Your task to perform on an android device: change timer sound Image 0: 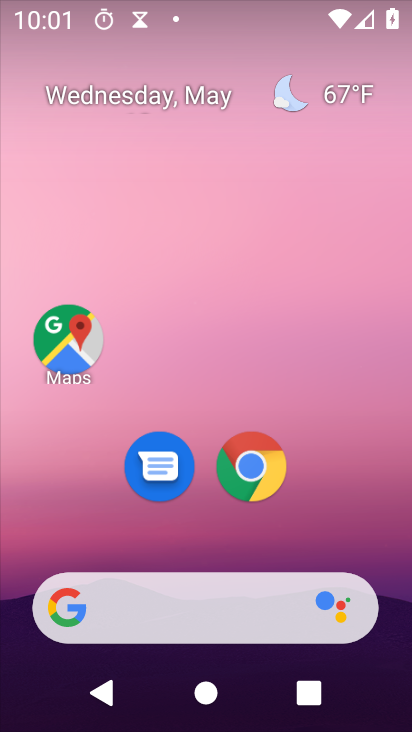
Step 0: drag from (284, 527) to (329, 194)
Your task to perform on an android device: change timer sound Image 1: 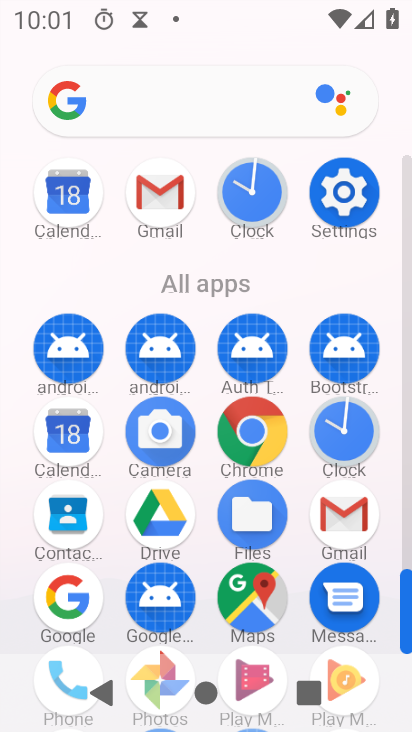
Step 1: click (249, 186)
Your task to perform on an android device: change timer sound Image 2: 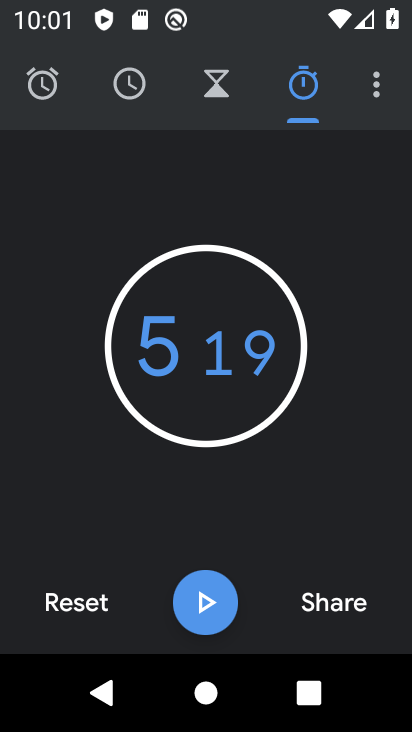
Step 2: click (221, 93)
Your task to perform on an android device: change timer sound Image 3: 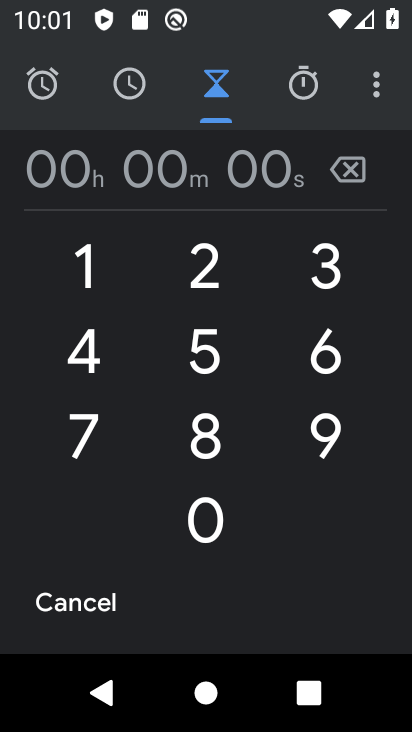
Step 3: click (208, 262)
Your task to perform on an android device: change timer sound Image 4: 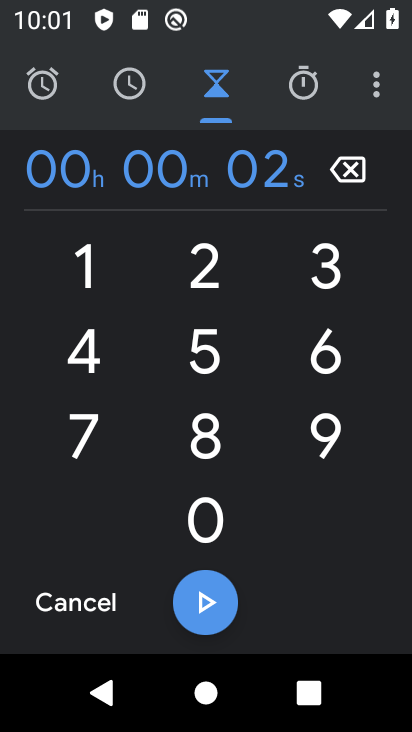
Step 4: click (203, 517)
Your task to perform on an android device: change timer sound Image 5: 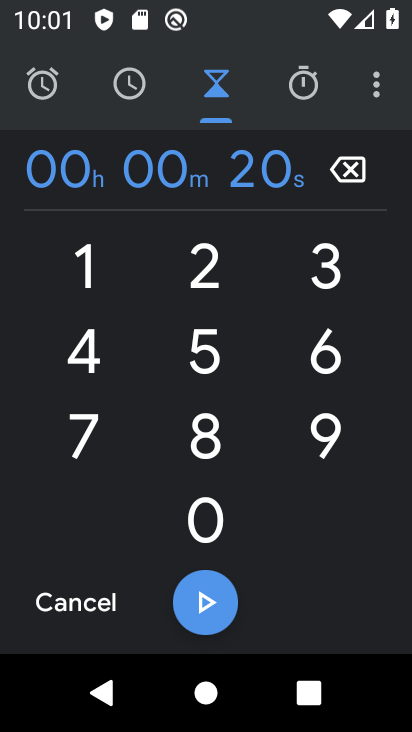
Step 5: click (93, 285)
Your task to perform on an android device: change timer sound Image 6: 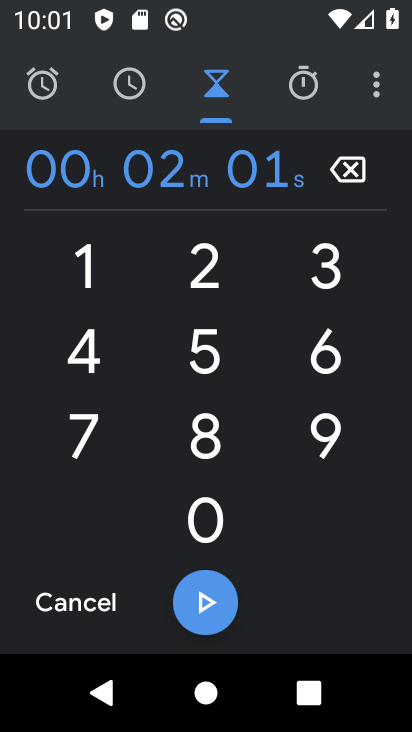
Step 6: click (236, 540)
Your task to perform on an android device: change timer sound Image 7: 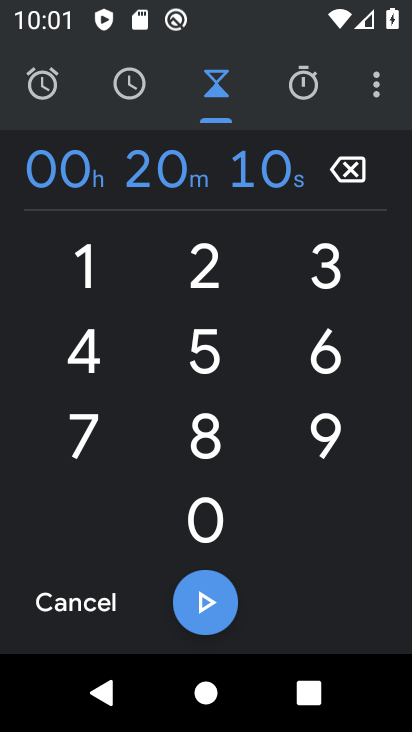
Step 7: click (191, 606)
Your task to perform on an android device: change timer sound Image 8: 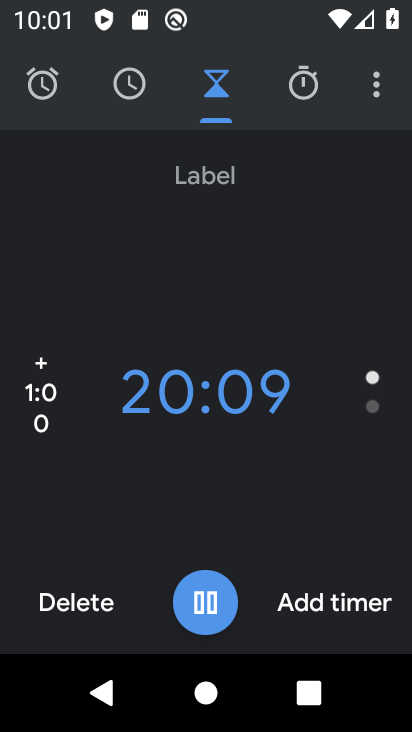
Step 8: click (343, 610)
Your task to perform on an android device: change timer sound Image 9: 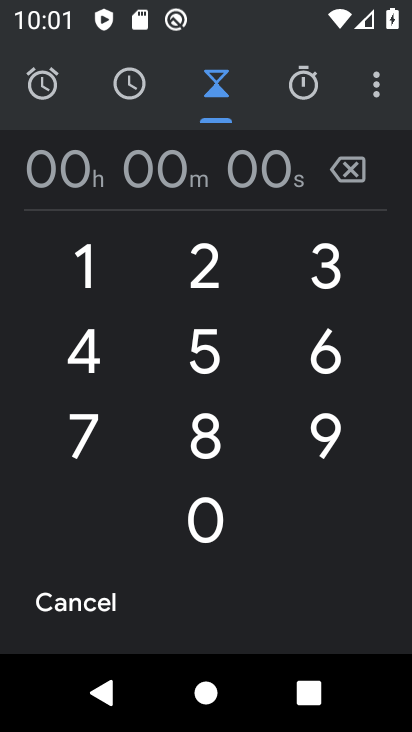
Step 9: task complete